Your task to perform on an android device: Go to Google Image 0: 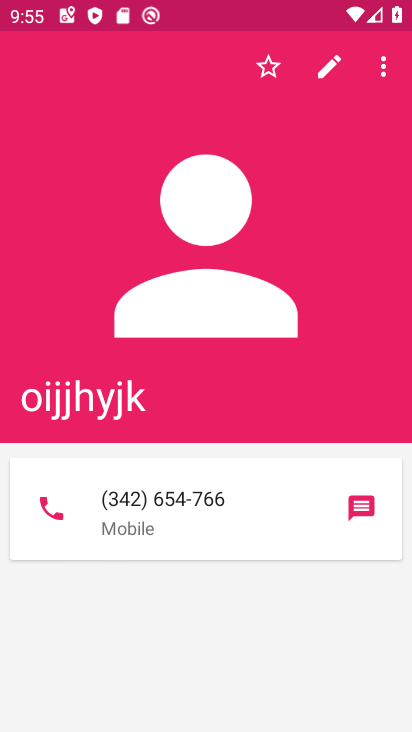
Step 0: press home button
Your task to perform on an android device: Go to Google Image 1: 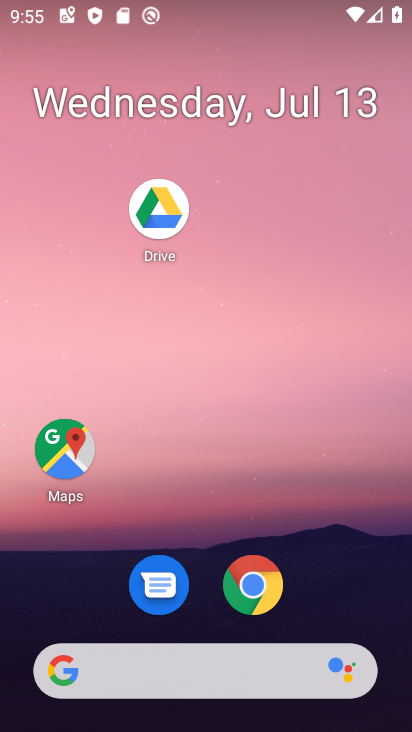
Step 1: drag from (171, 669) to (311, 12)
Your task to perform on an android device: Go to Google Image 2: 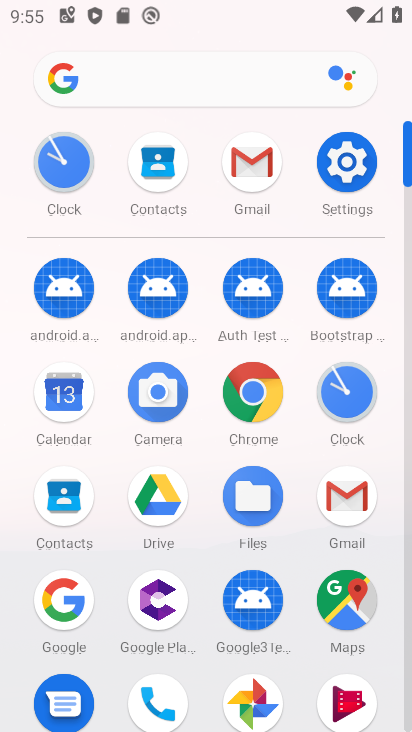
Step 2: click (61, 590)
Your task to perform on an android device: Go to Google Image 3: 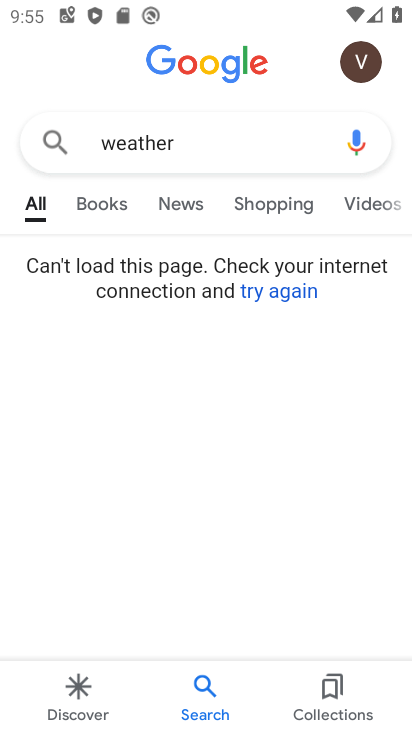
Step 3: drag from (194, 241) to (182, 503)
Your task to perform on an android device: Go to Google Image 4: 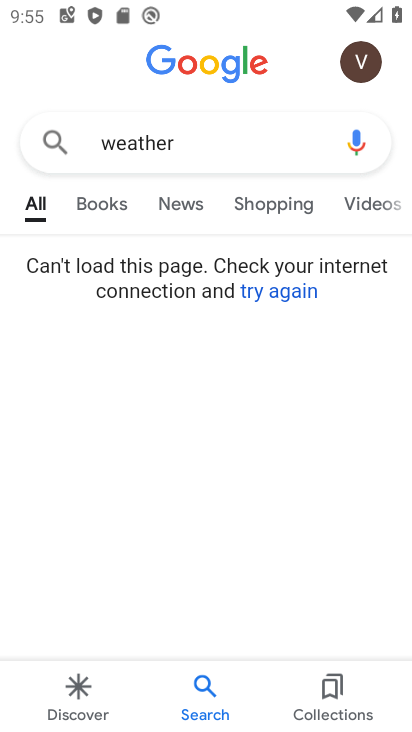
Step 4: click (268, 288)
Your task to perform on an android device: Go to Google Image 5: 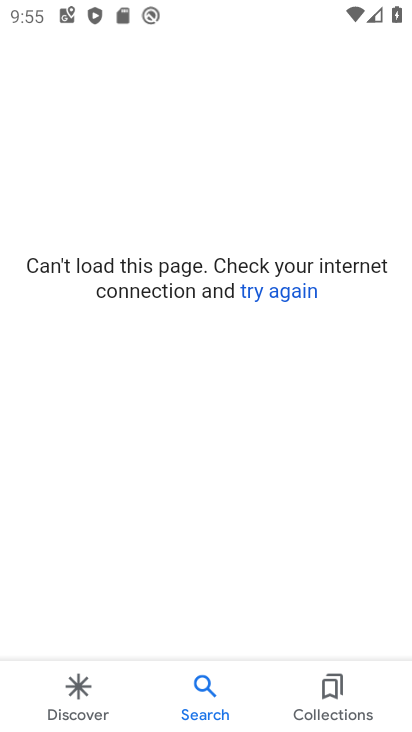
Step 5: click (273, 291)
Your task to perform on an android device: Go to Google Image 6: 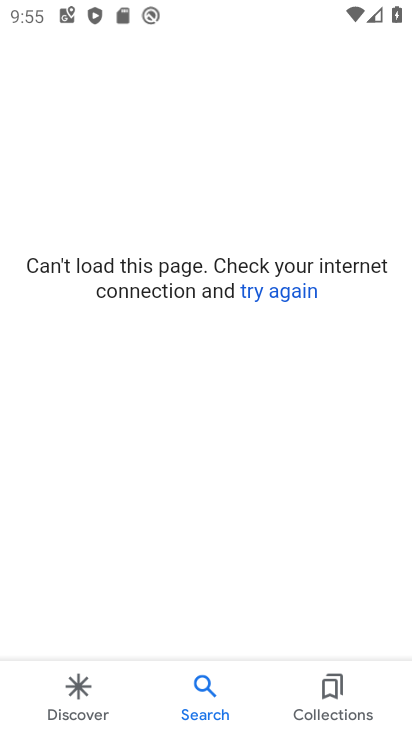
Step 6: click (74, 710)
Your task to perform on an android device: Go to Google Image 7: 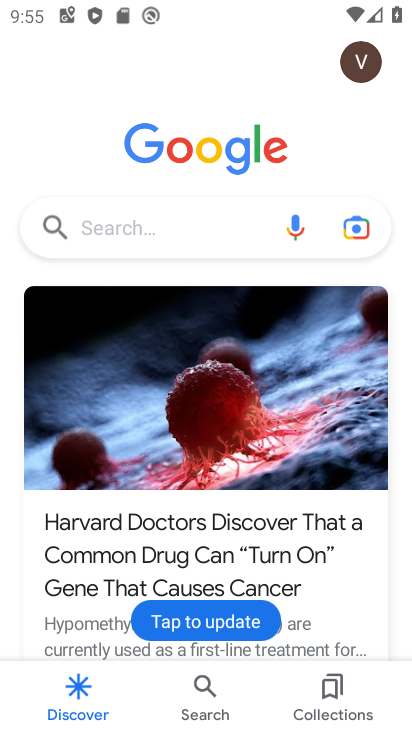
Step 7: task complete